Your task to perform on an android device: toggle airplane mode Image 0: 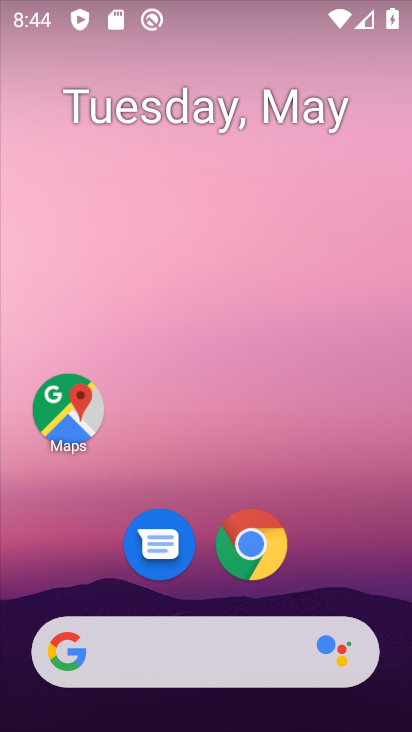
Step 0: drag from (361, 552) to (349, 153)
Your task to perform on an android device: toggle airplane mode Image 1: 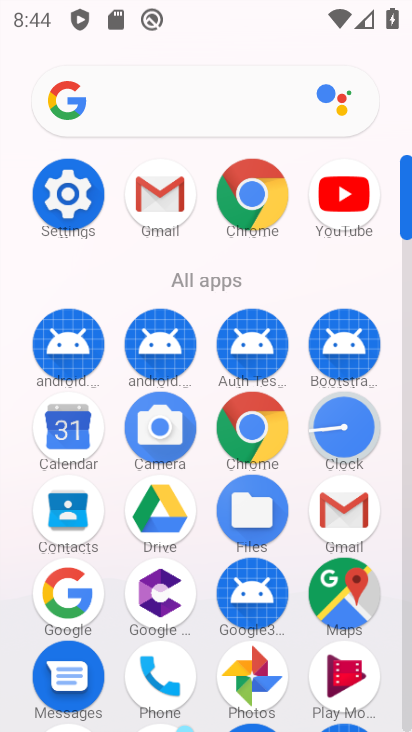
Step 1: click (53, 198)
Your task to perform on an android device: toggle airplane mode Image 2: 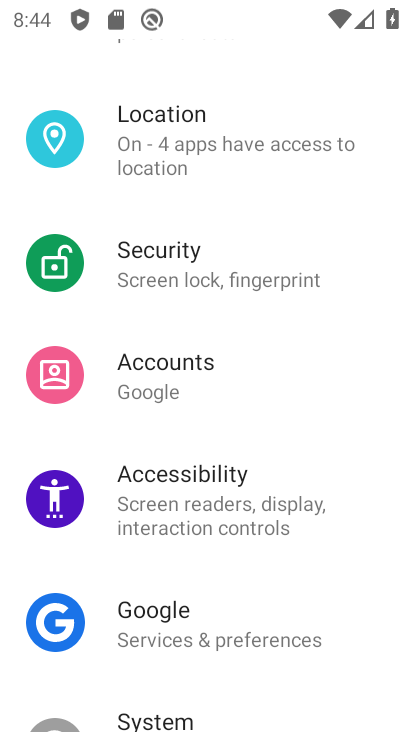
Step 2: drag from (208, 229) to (273, 634)
Your task to perform on an android device: toggle airplane mode Image 3: 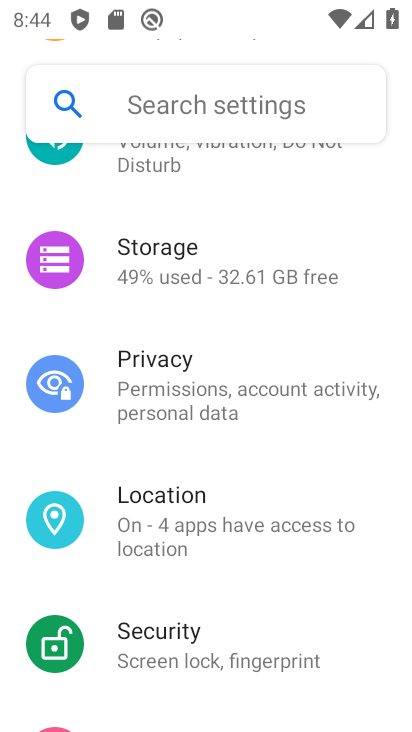
Step 3: drag from (276, 241) to (285, 621)
Your task to perform on an android device: toggle airplane mode Image 4: 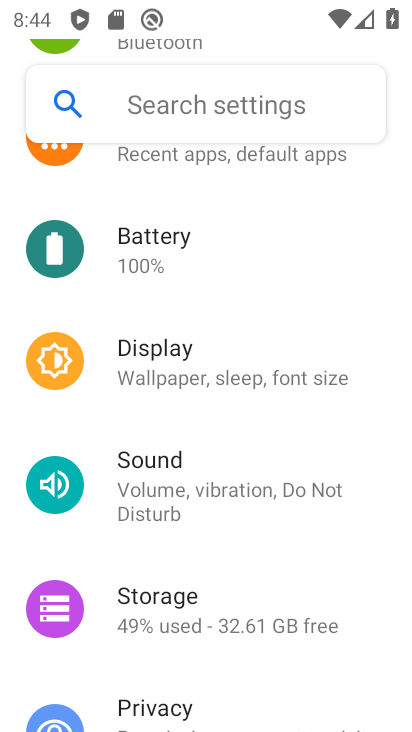
Step 4: drag from (284, 326) to (293, 618)
Your task to perform on an android device: toggle airplane mode Image 5: 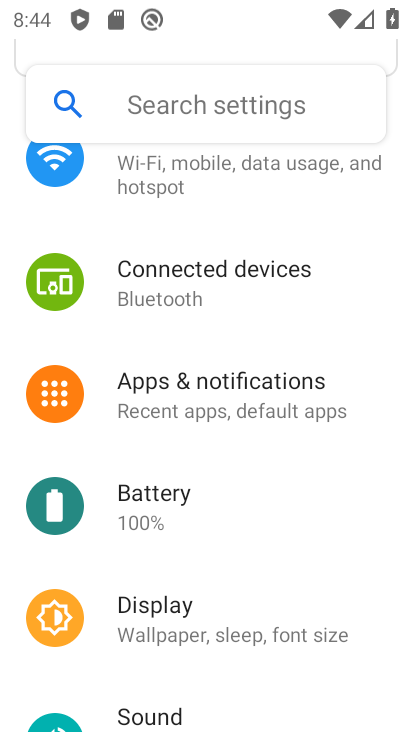
Step 5: drag from (257, 267) to (267, 668)
Your task to perform on an android device: toggle airplane mode Image 6: 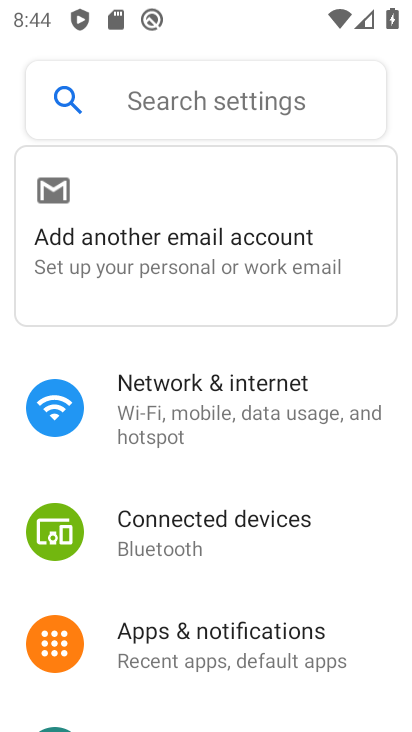
Step 6: click (226, 408)
Your task to perform on an android device: toggle airplane mode Image 7: 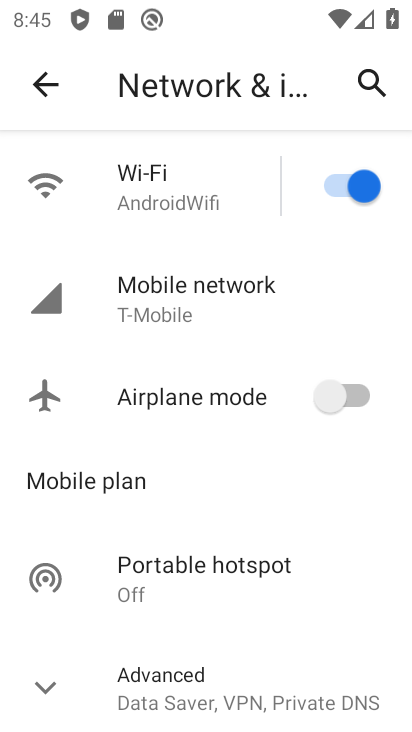
Step 7: click (352, 398)
Your task to perform on an android device: toggle airplane mode Image 8: 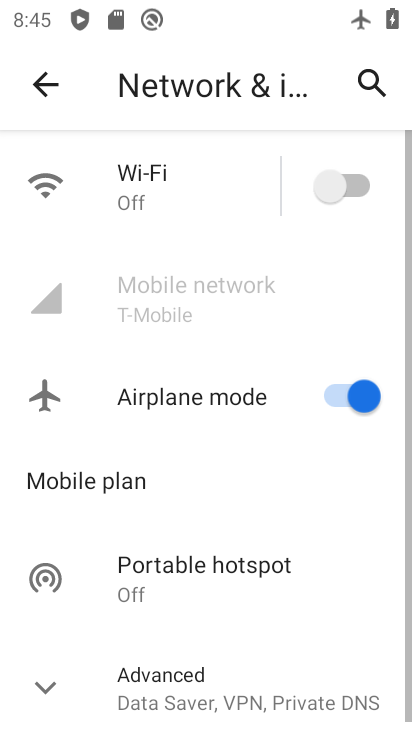
Step 8: task complete